Your task to perform on an android device: Go to accessibility settings Image 0: 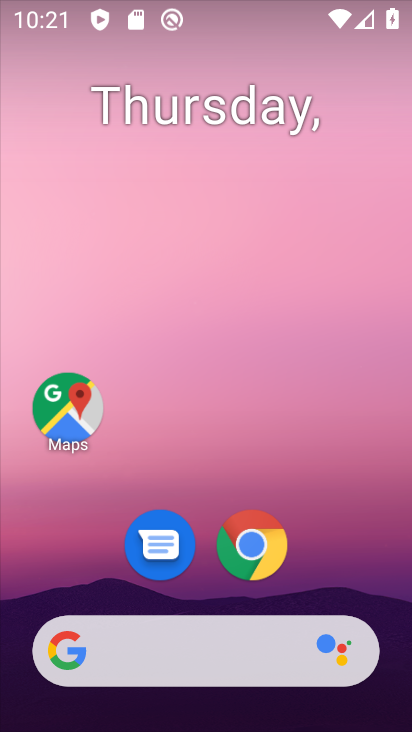
Step 0: drag from (354, 579) to (248, 99)
Your task to perform on an android device: Go to accessibility settings Image 1: 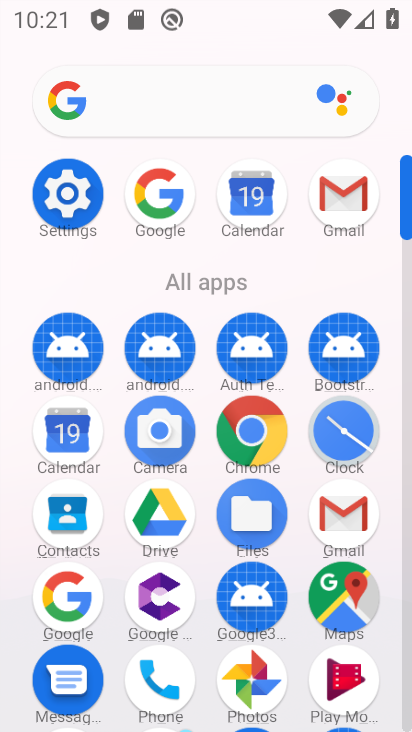
Step 1: click (67, 193)
Your task to perform on an android device: Go to accessibility settings Image 2: 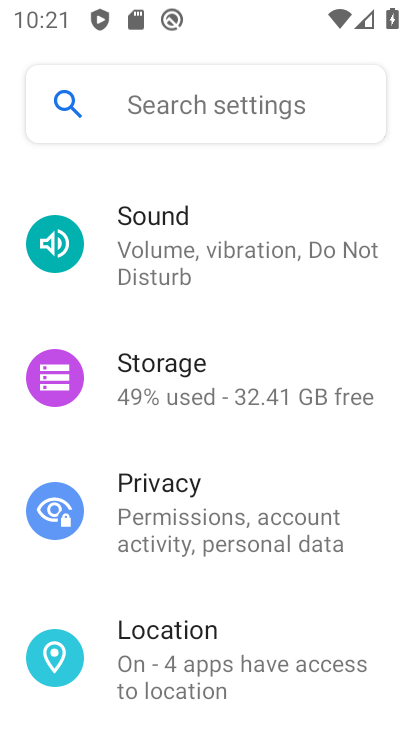
Step 2: drag from (214, 448) to (263, 367)
Your task to perform on an android device: Go to accessibility settings Image 3: 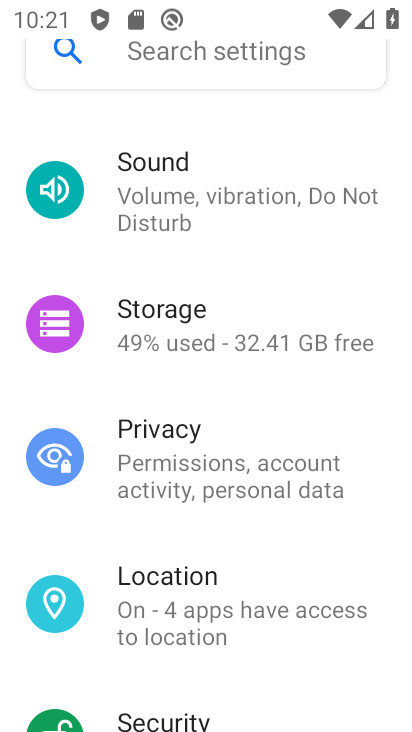
Step 3: drag from (216, 555) to (262, 445)
Your task to perform on an android device: Go to accessibility settings Image 4: 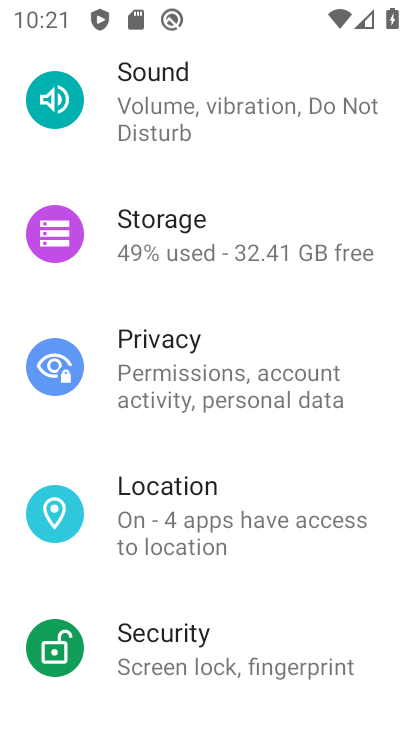
Step 4: drag from (219, 578) to (273, 471)
Your task to perform on an android device: Go to accessibility settings Image 5: 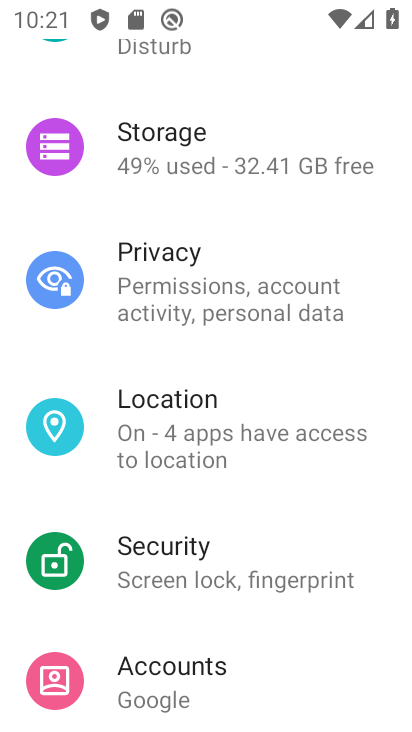
Step 5: drag from (189, 610) to (245, 516)
Your task to perform on an android device: Go to accessibility settings Image 6: 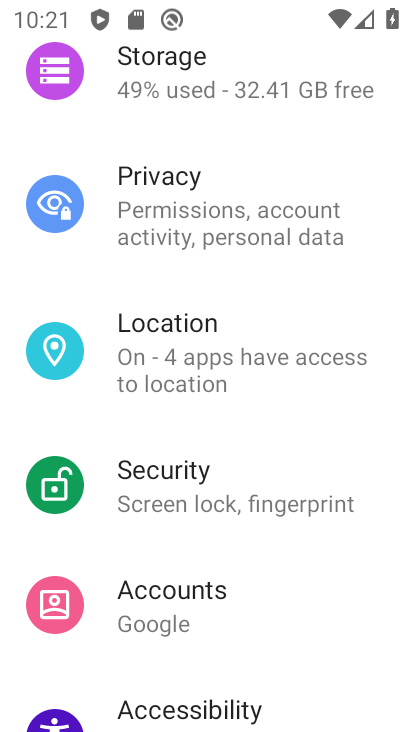
Step 6: drag from (181, 647) to (266, 494)
Your task to perform on an android device: Go to accessibility settings Image 7: 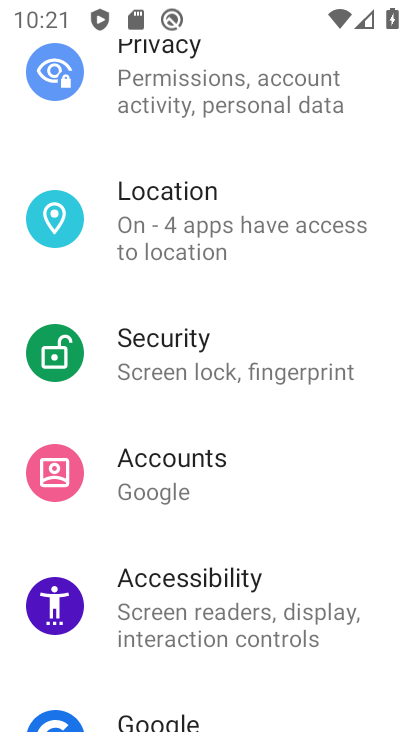
Step 7: click (153, 567)
Your task to perform on an android device: Go to accessibility settings Image 8: 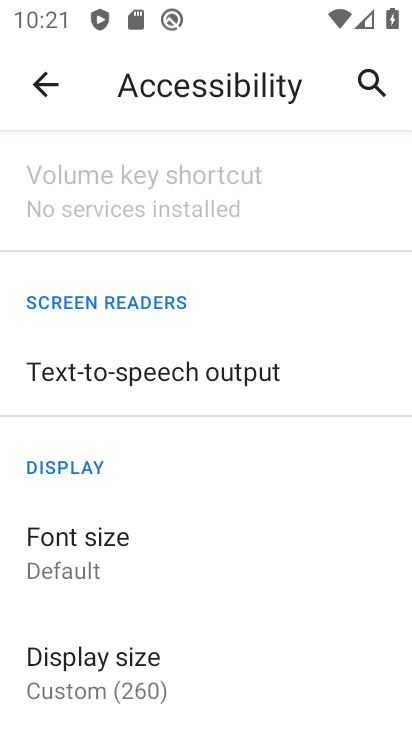
Step 8: task complete